Your task to perform on an android device: open wifi settings Image 0: 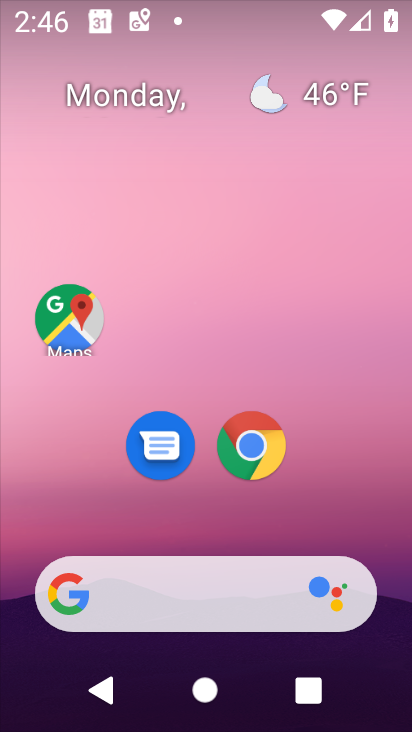
Step 0: drag from (336, 467) to (313, 64)
Your task to perform on an android device: open wifi settings Image 1: 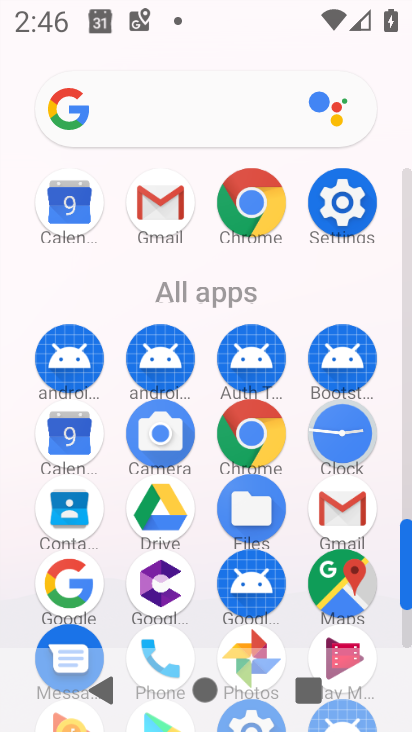
Step 1: click (330, 192)
Your task to perform on an android device: open wifi settings Image 2: 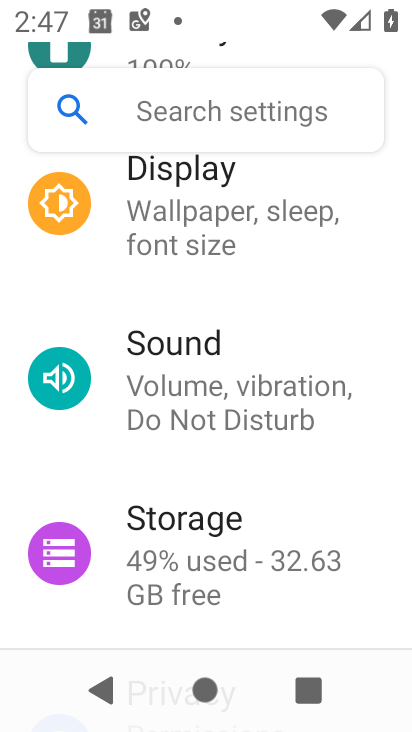
Step 2: drag from (291, 251) to (288, 521)
Your task to perform on an android device: open wifi settings Image 3: 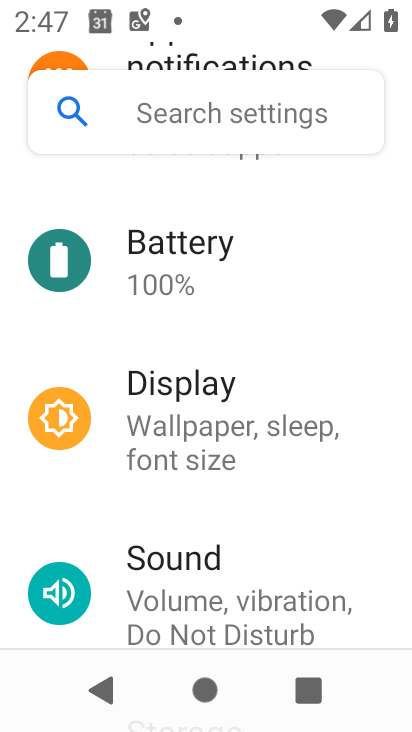
Step 3: drag from (297, 250) to (280, 508)
Your task to perform on an android device: open wifi settings Image 4: 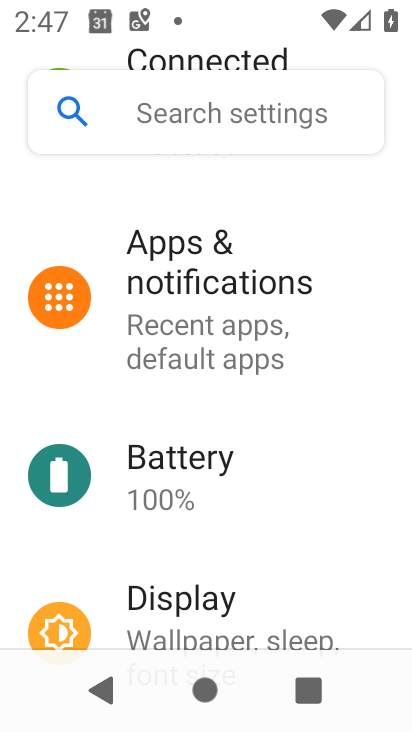
Step 4: drag from (306, 299) to (302, 525)
Your task to perform on an android device: open wifi settings Image 5: 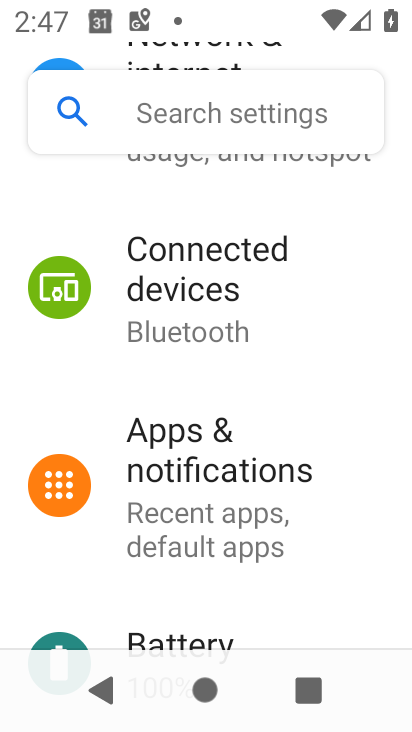
Step 5: drag from (245, 265) to (266, 549)
Your task to perform on an android device: open wifi settings Image 6: 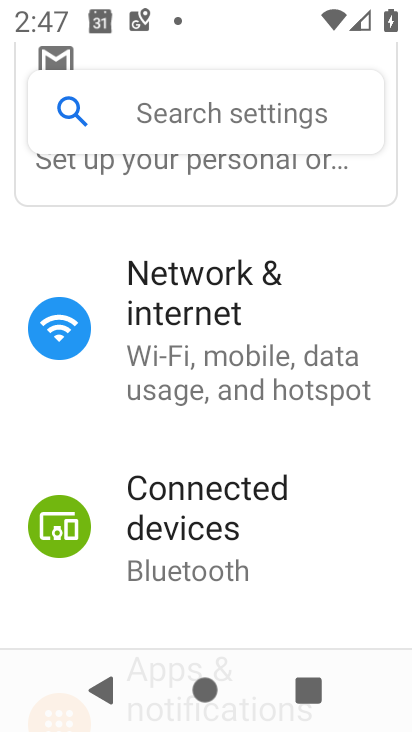
Step 6: drag from (279, 347) to (279, 564)
Your task to perform on an android device: open wifi settings Image 7: 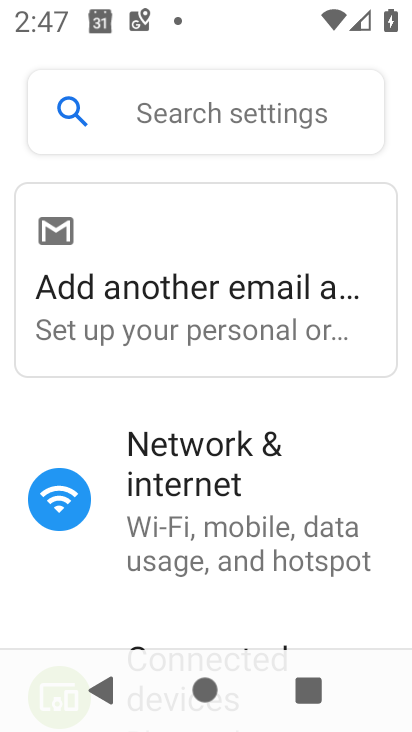
Step 7: drag from (295, 384) to (301, 535)
Your task to perform on an android device: open wifi settings Image 8: 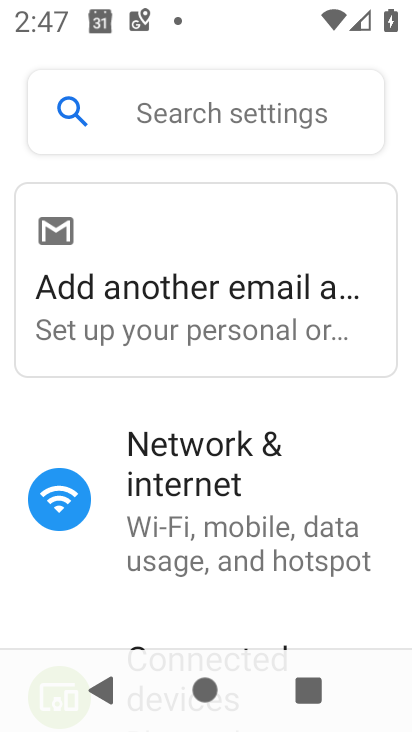
Step 8: click (241, 533)
Your task to perform on an android device: open wifi settings Image 9: 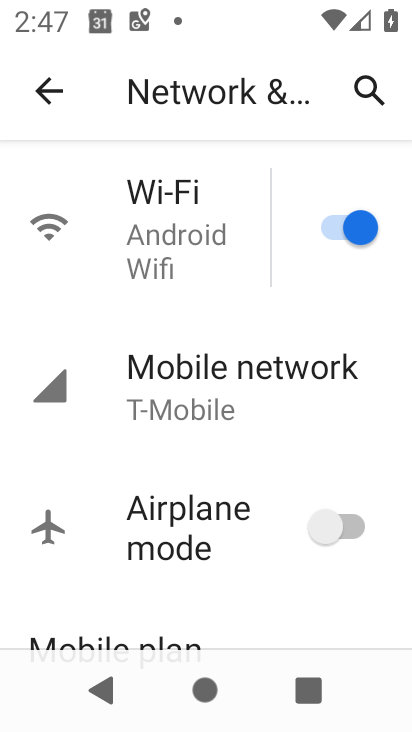
Step 9: click (195, 219)
Your task to perform on an android device: open wifi settings Image 10: 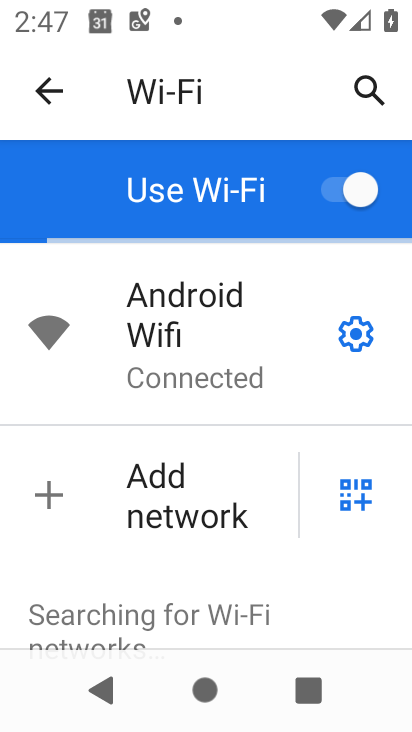
Step 10: task complete